Your task to perform on an android device: Open Amazon Image 0: 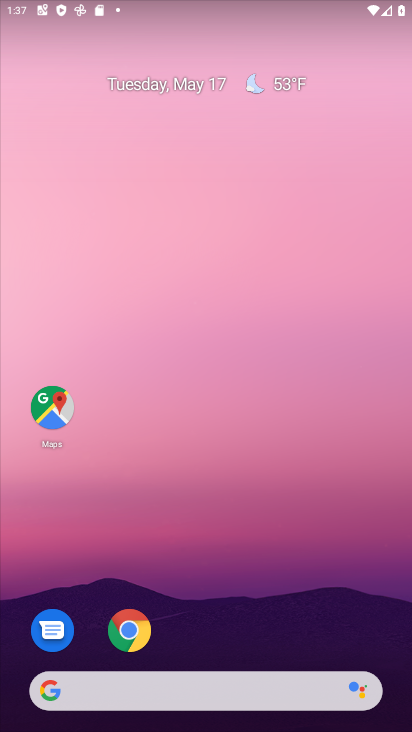
Step 0: drag from (219, 659) to (262, 136)
Your task to perform on an android device: Open Amazon Image 1: 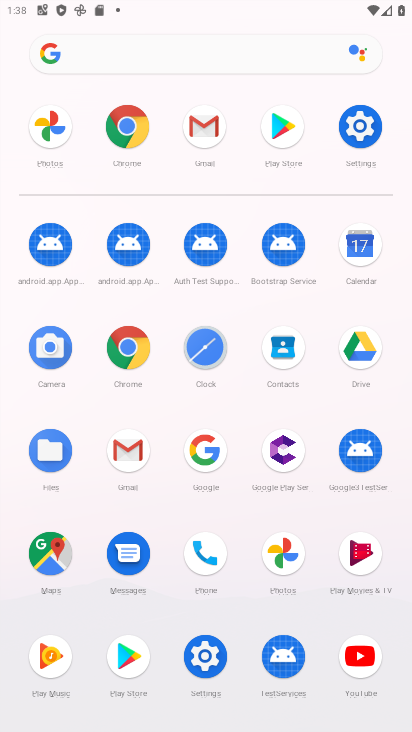
Step 1: click (133, 143)
Your task to perform on an android device: Open Amazon Image 2: 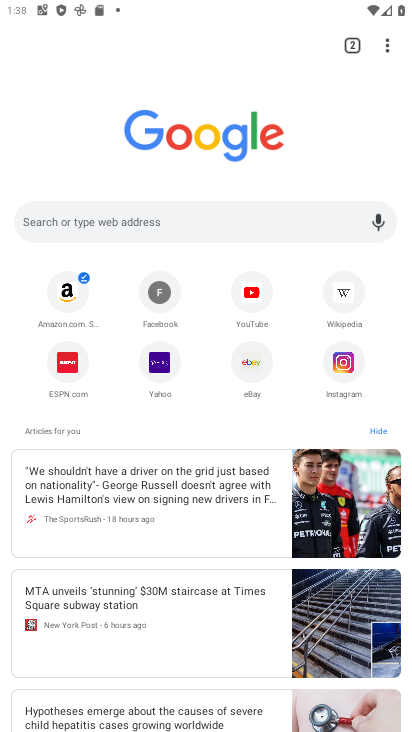
Step 2: click (61, 303)
Your task to perform on an android device: Open Amazon Image 3: 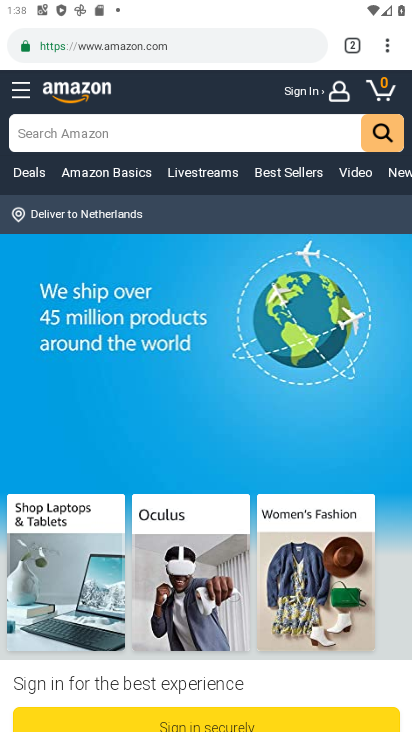
Step 3: task complete